Your task to perform on an android device: Open battery settings Image 0: 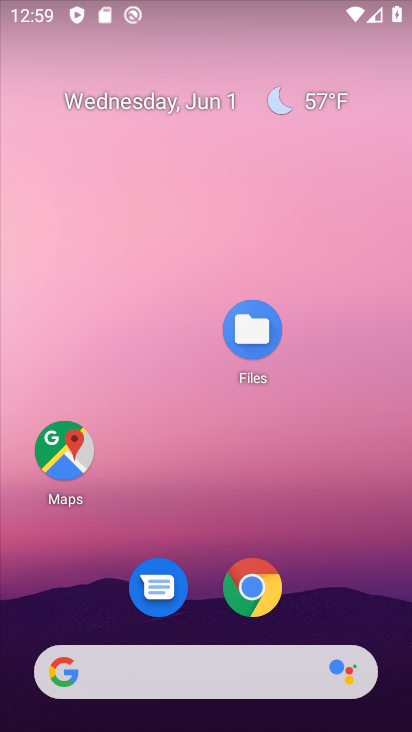
Step 0: drag from (365, 566) to (240, 49)
Your task to perform on an android device: Open battery settings Image 1: 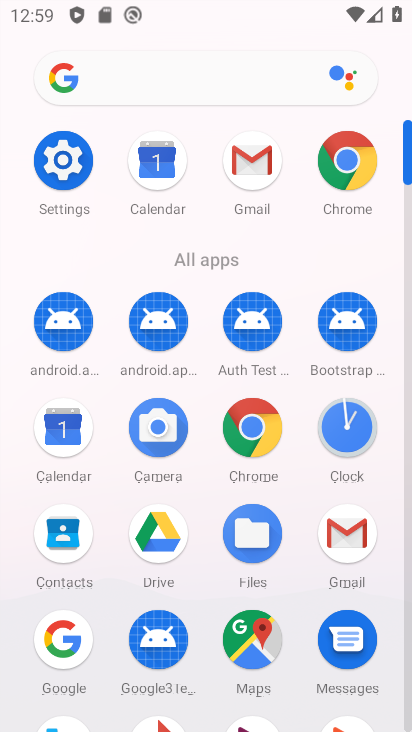
Step 1: click (83, 144)
Your task to perform on an android device: Open battery settings Image 2: 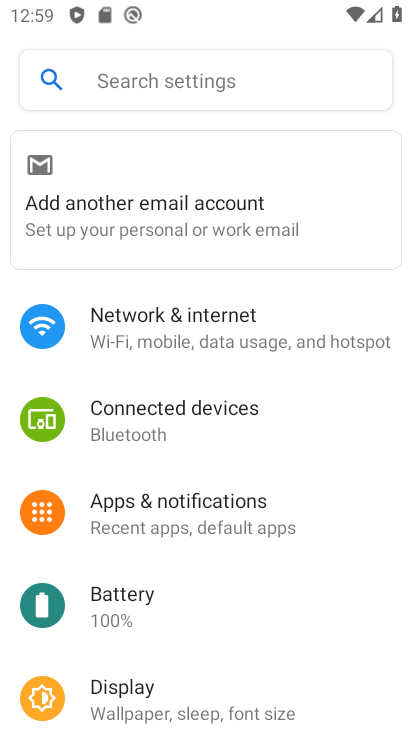
Step 2: click (112, 621)
Your task to perform on an android device: Open battery settings Image 3: 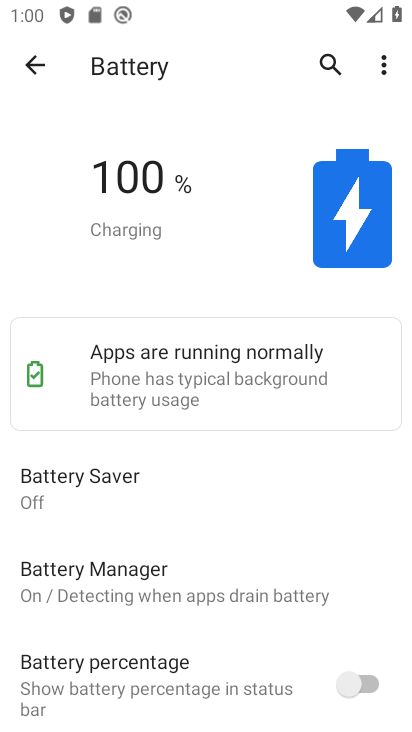
Step 3: task complete